Your task to perform on an android device: open app "Expedia: Hotels, Flights & Car" (install if not already installed) and go to login screen Image 0: 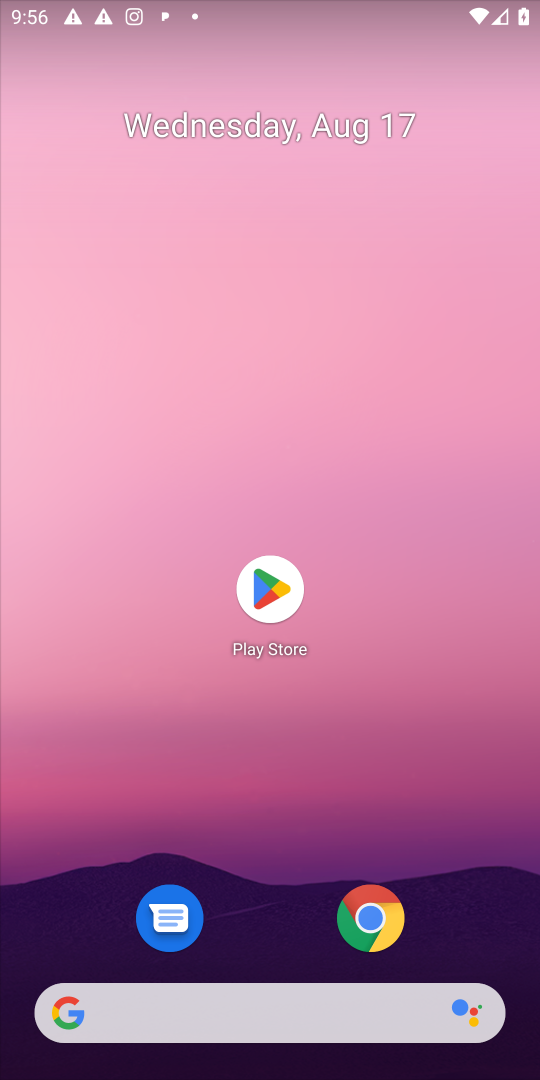
Step 0: click (275, 582)
Your task to perform on an android device: open app "Expedia: Hotels, Flights & Car" (install if not already installed) and go to login screen Image 1: 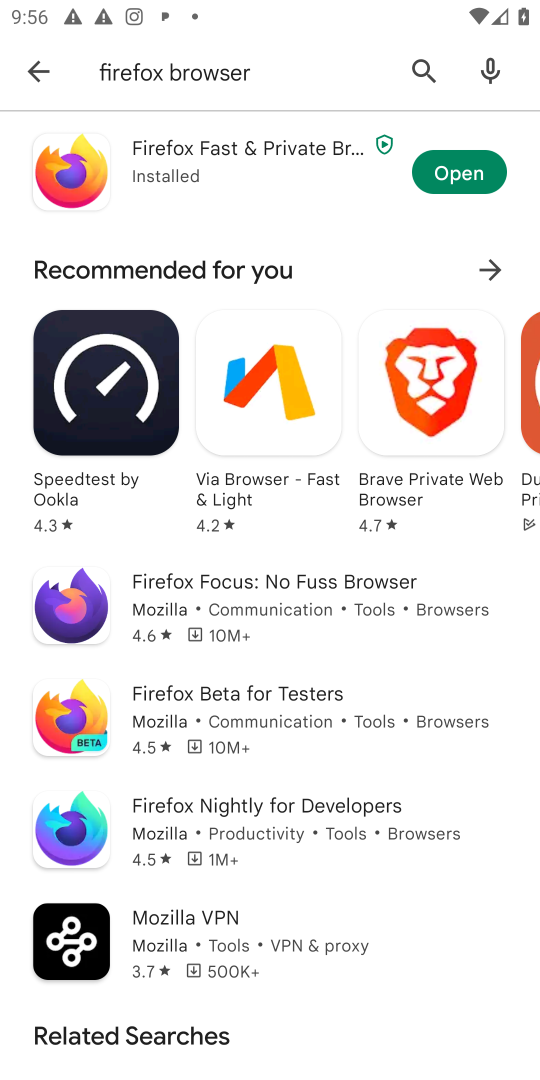
Step 1: click (426, 66)
Your task to perform on an android device: open app "Expedia: Hotels, Flights & Car" (install if not already installed) and go to login screen Image 2: 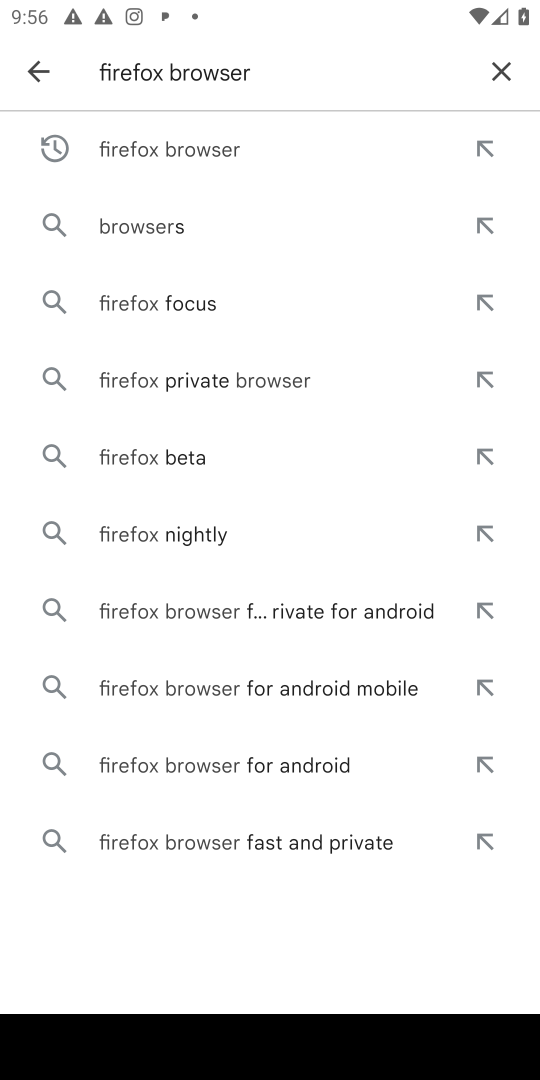
Step 2: click (504, 69)
Your task to perform on an android device: open app "Expedia: Hotels, Flights & Car" (install if not already installed) and go to login screen Image 3: 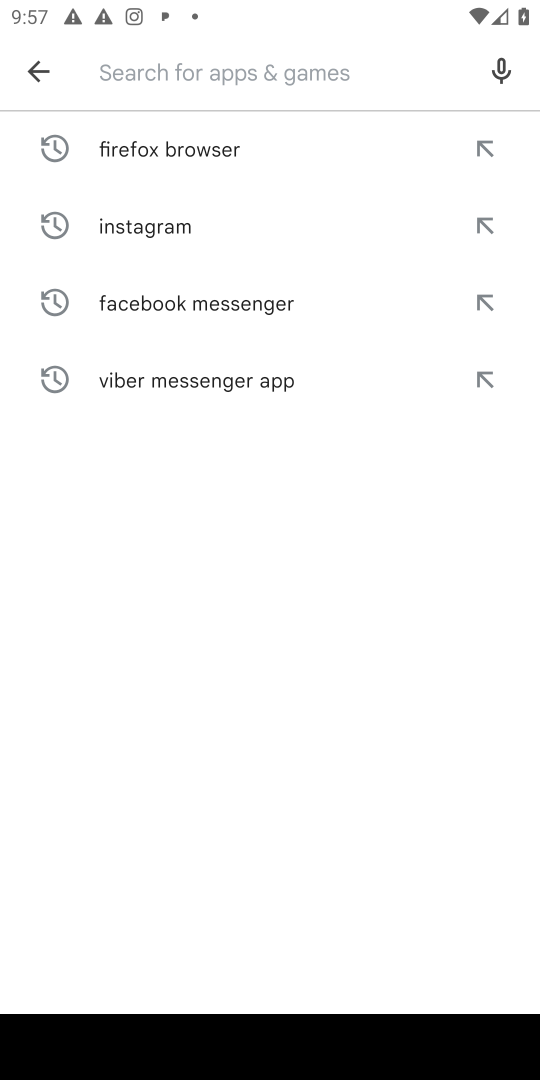
Step 3: type "Expedia: Hotels, Flights & Car"
Your task to perform on an android device: open app "Expedia: Hotels, Flights & Car" (install if not already installed) and go to login screen Image 4: 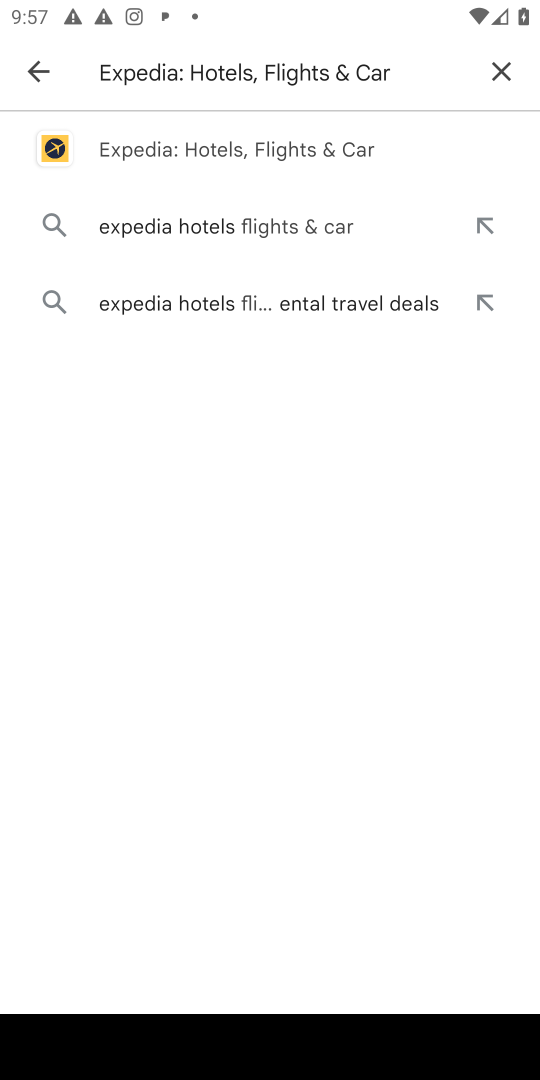
Step 4: click (235, 156)
Your task to perform on an android device: open app "Expedia: Hotels, Flights & Car" (install if not already installed) and go to login screen Image 5: 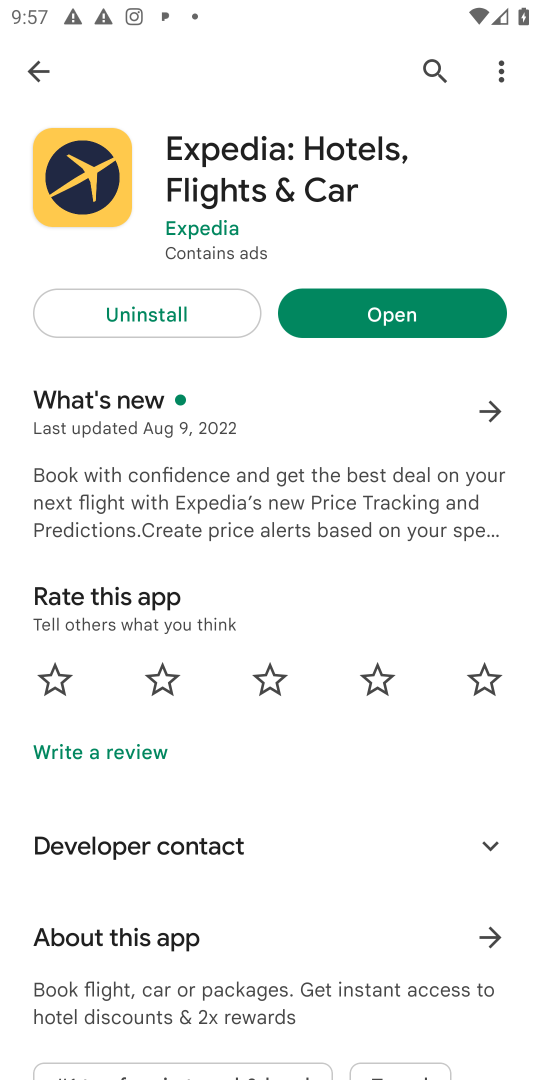
Step 5: click (364, 308)
Your task to perform on an android device: open app "Expedia: Hotels, Flights & Car" (install if not already installed) and go to login screen Image 6: 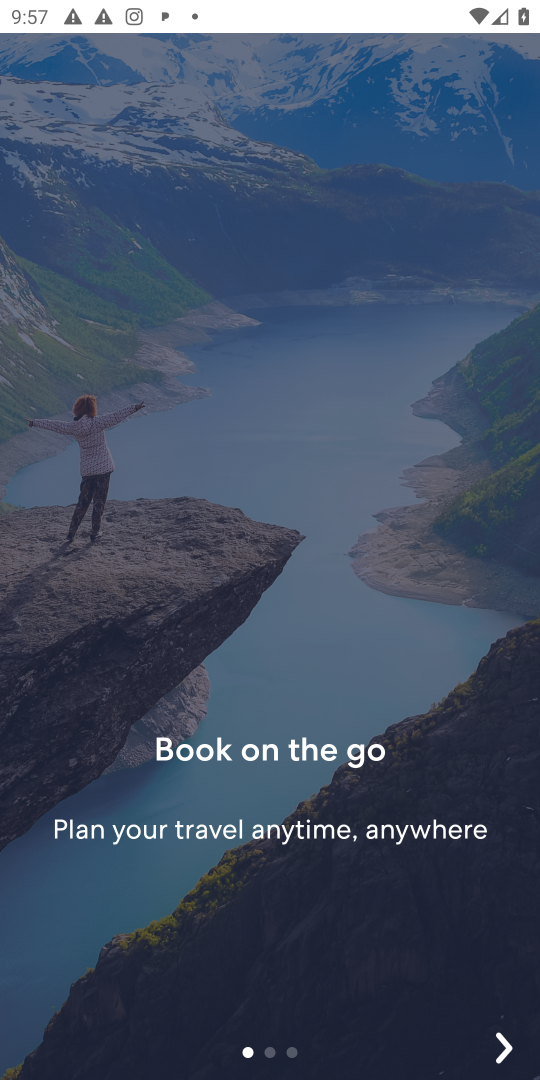
Step 6: click (506, 1031)
Your task to perform on an android device: open app "Expedia: Hotels, Flights & Car" (install if not already installed) and go to login screen Image 7: 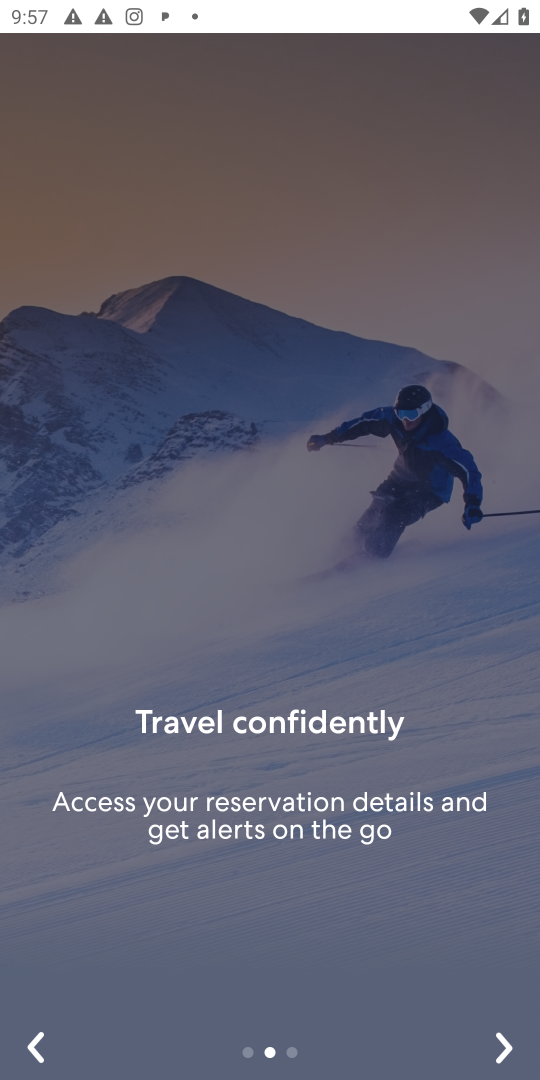
Step 7: click (503, 1046)
Your task to perform on an android device: open app "Expedia: Hotels, Flights & Car" (install if not already installed) and go to login screen Image 8: 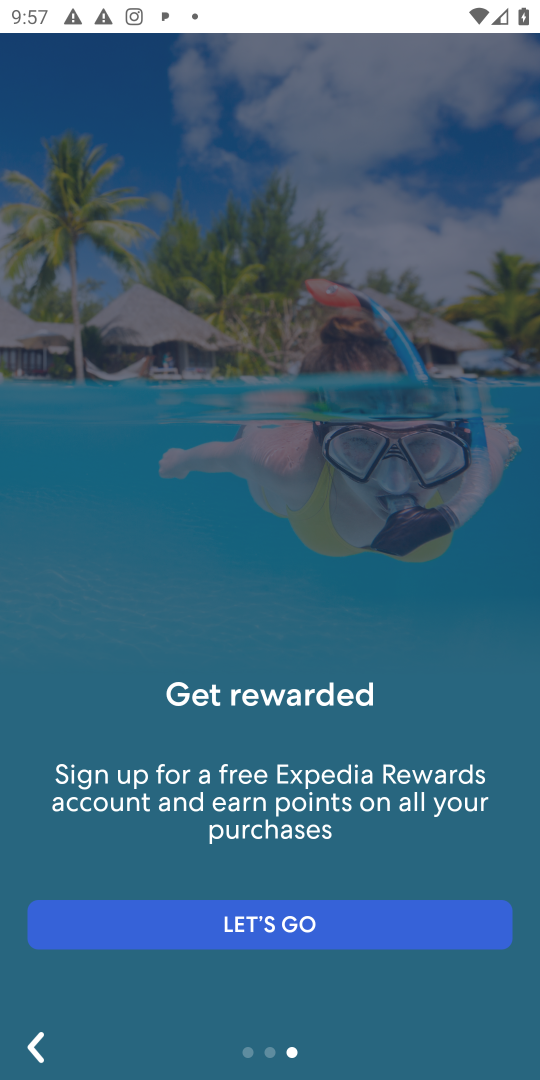
Step 8: click (395, 919)
Your task to perform on an android device: open app "Expedia: Hotels, Flights & Car" (install if not already installed) and go to login screen Image 9: 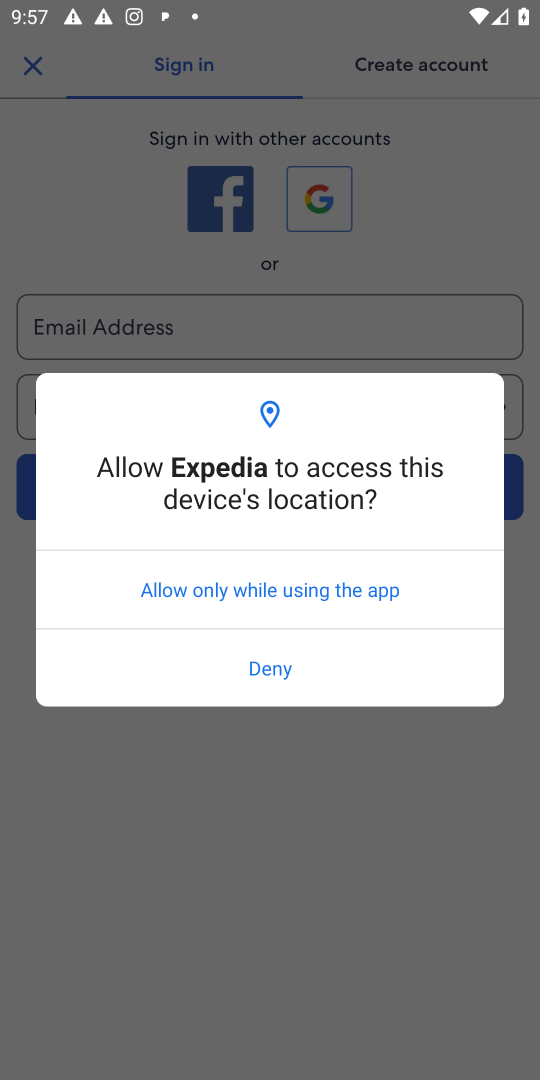
Step 9: click (304, 606)
Your task to perform on an android device: open app "Expedia: Hotels, Flights & Car" (install if not already installed) and go to login screen Image 10: 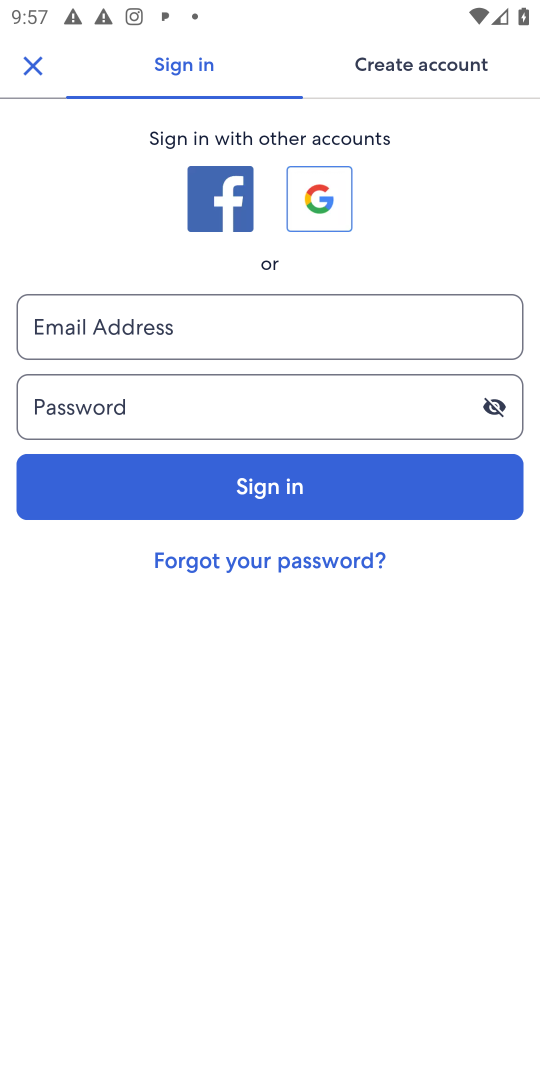
Step 10: task complete